Your task to perform on an android device: turn off notifications in google photos Image 0: 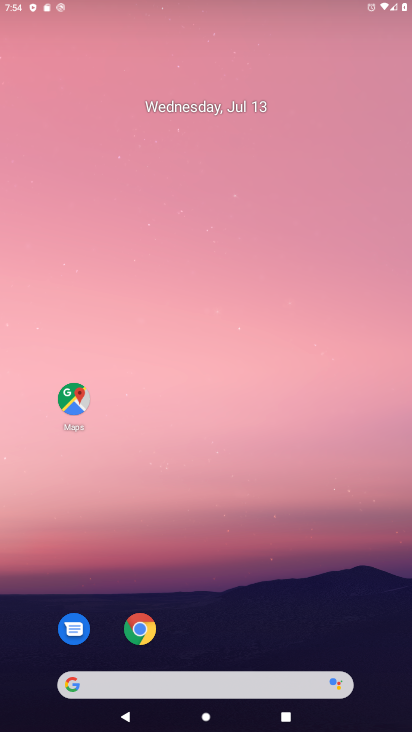
Step 0: drag from (77, 604) to (316, 9)
Your task to perform on an android device: turn off notifications in google photos Image 1: 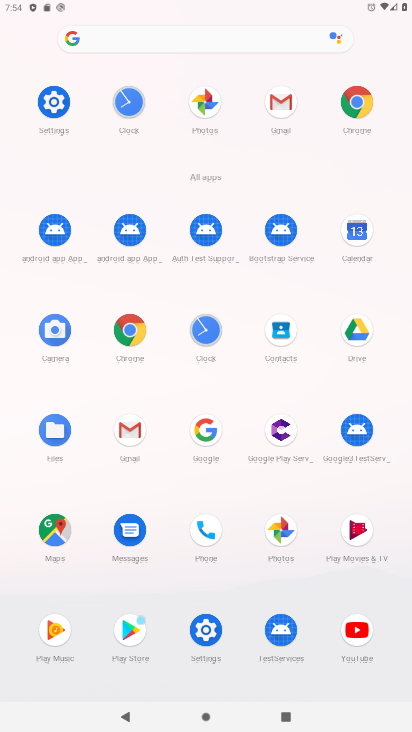
Step 1: click (168, 609)
Your task to perform on an android device: turn off notifications in google photos Image 2: 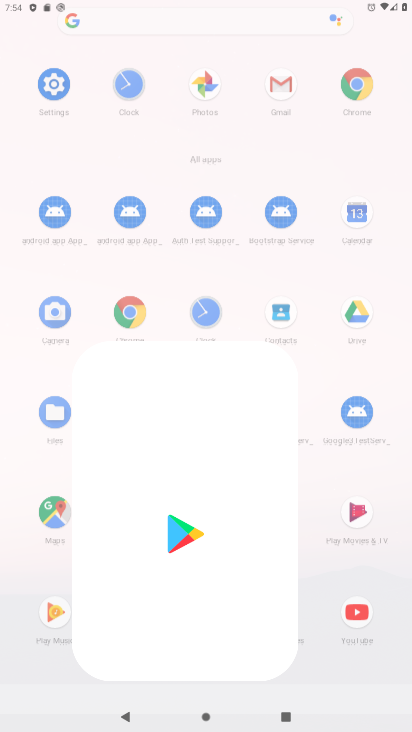
Step 2: click (200, 631)
Your task to perform on an android device: turn off notifications in google photos Image 3: 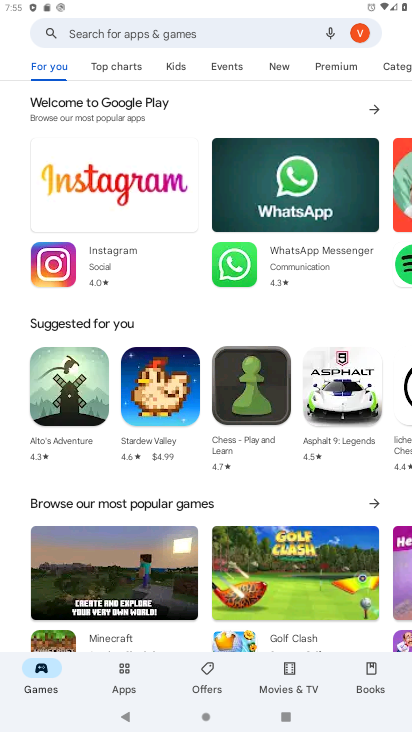
Step 3: press home button
Your task to perform on an android device: turn off notifications in google photos Image 4: 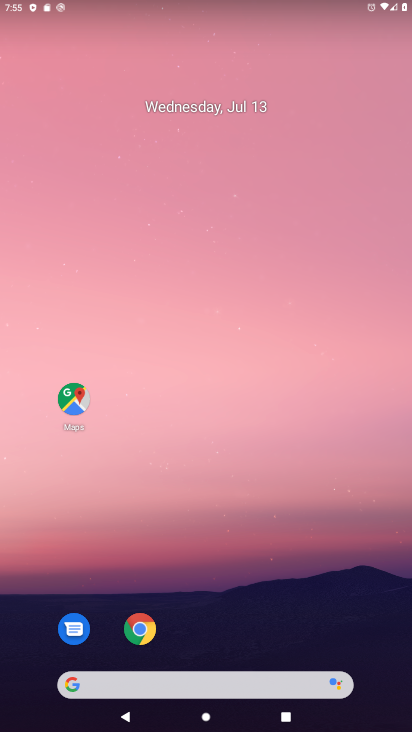
Step 4: drag from (41, 685) to (220, 183)
Your task to perform on an android device: turn off notifications in google photos Image 5: 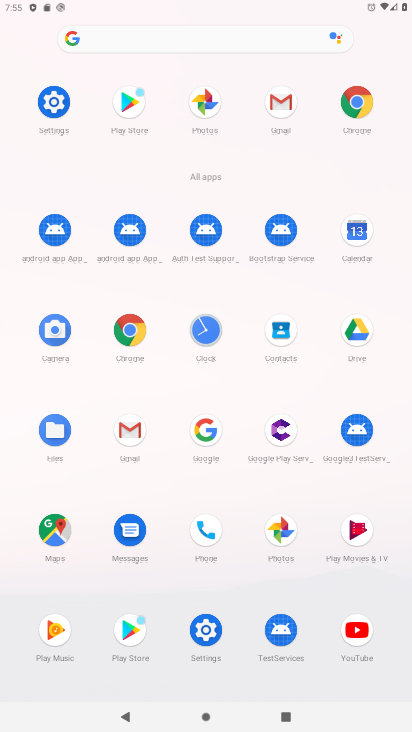
Step 5: click (284, 528)
Your task to perform on an android device: turn off notifications in google photos Image 6: 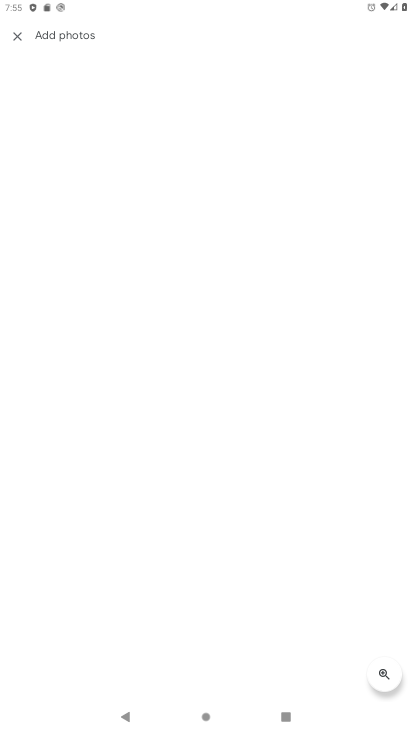
Step 6: task complete